Your task to perform on an android device: Is it going to rain tomorrow? Image 0: 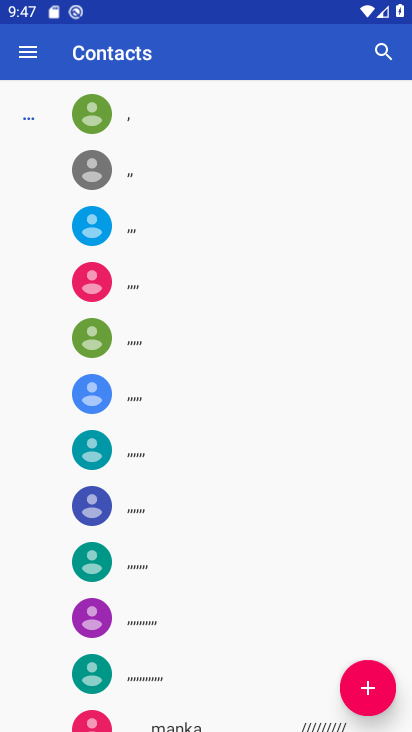
Step 0: press home button
Your task to perform on an android device: Is it going to rain tomorrow? Image 1: 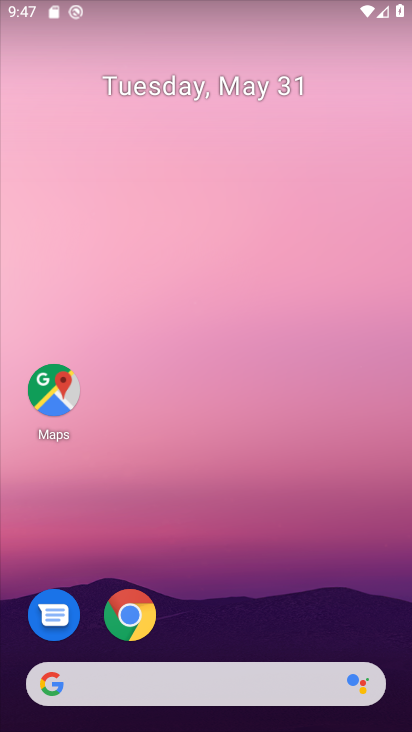
Step 1: click (157, 693)
Your task to perform on an android device: Is it going to rain tomorrow? Image 2: 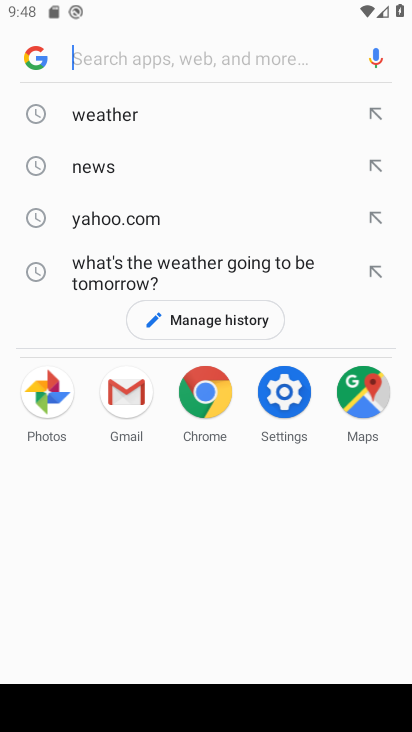
Step 2: type "is it going to rain tomorrow"
Your task to perform on an android device: Is it going to rain tomorrow? Image 3: 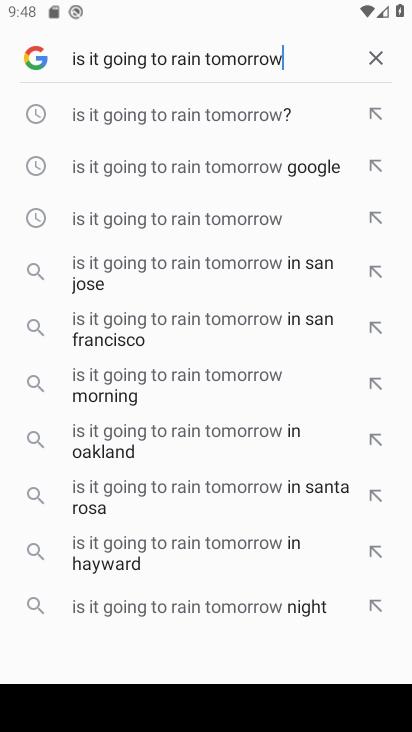
Step 3: click (182, 115)
Your task to perform on an android device: Is it going to rain tomorrow? Image 4: 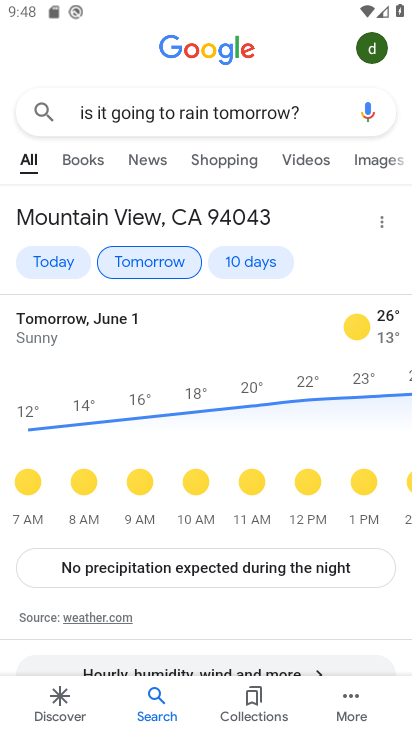
Step 4: task complete